Your task to perform on an android device: Open Google Maps and go to "Timeline" Image 0: 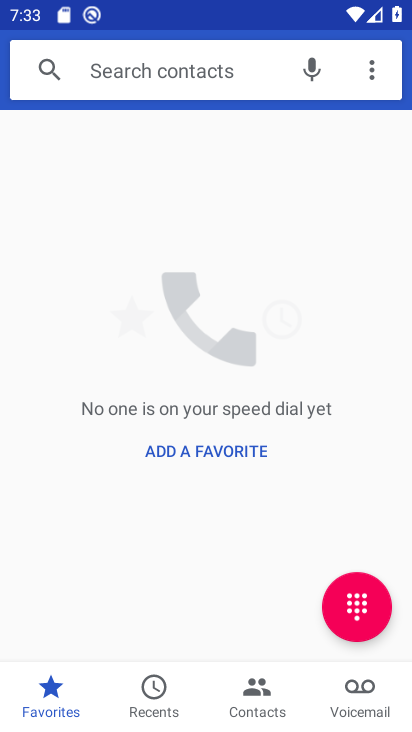
Step 0: press back button
Your task to perform on an android device: Open Google Maps and go to "Timeline" Image 1: 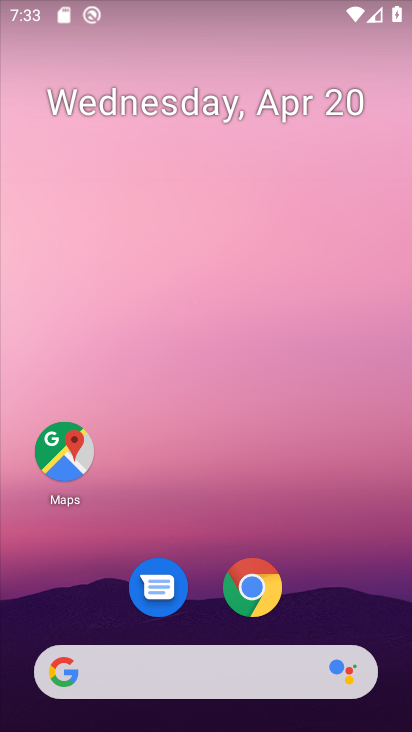
Step 1: click (68, 458)
Your task to perform on an android device: Open Google Maps and go to "Timeline" Image 2: 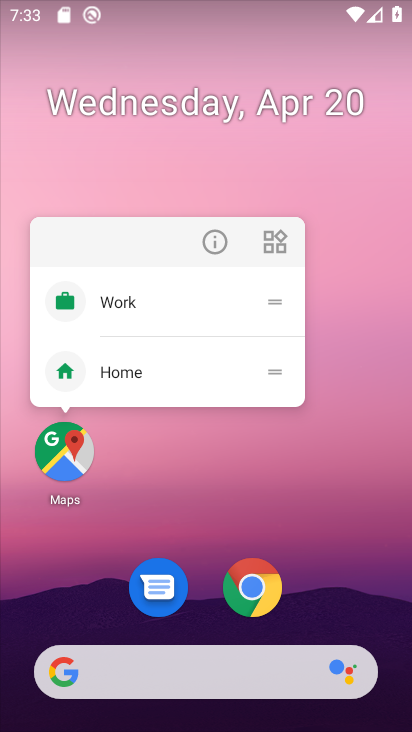
Step 2: click (68, 458)
Your task to perform on an android device: Open Google Maps and go to "Timeline" Image 3: 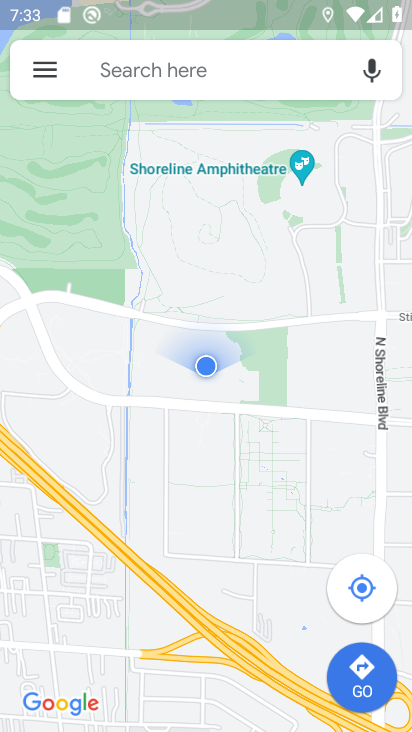
Step 3: click (44, 58)
Your task to perform on an android device: Open Google Maps and go to "Timeline" Image 4: 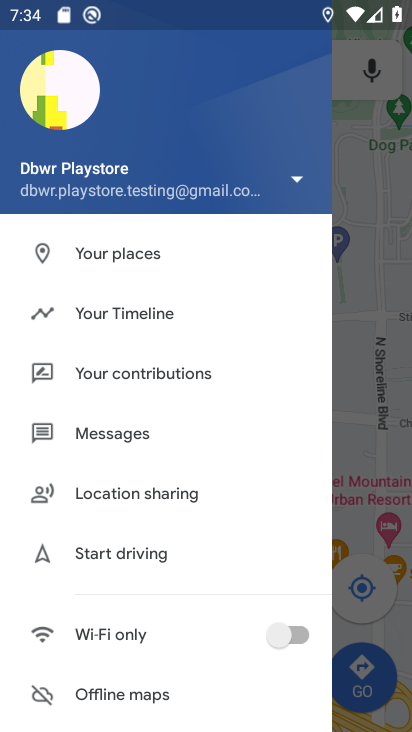
Step 4: click (139, 324)
Your task to perform on an android device: Open Google Maps and go to "Timeline" Image 5: 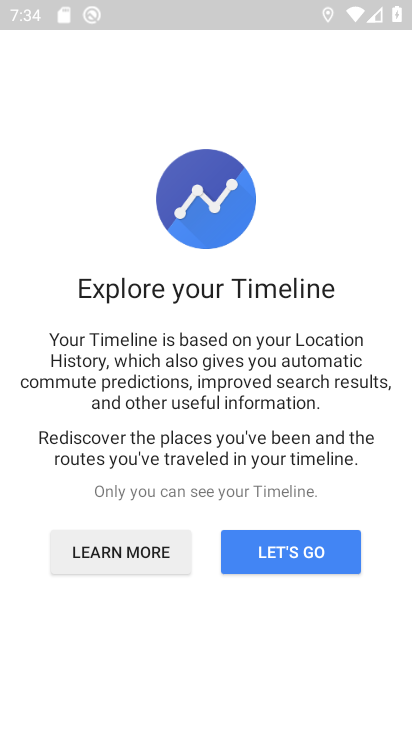
Step 5: task complete